Your task to perform on an android device: Go to ESPN.com Image 0: 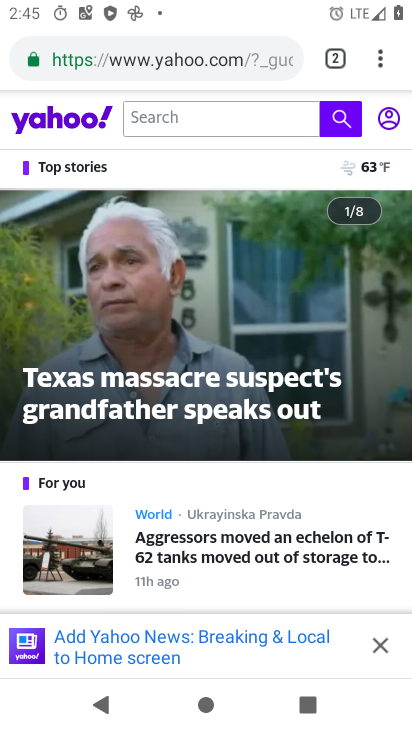
Step 0: press home button
Your task to perform on an android device: Go to ESPN.com Image 1: 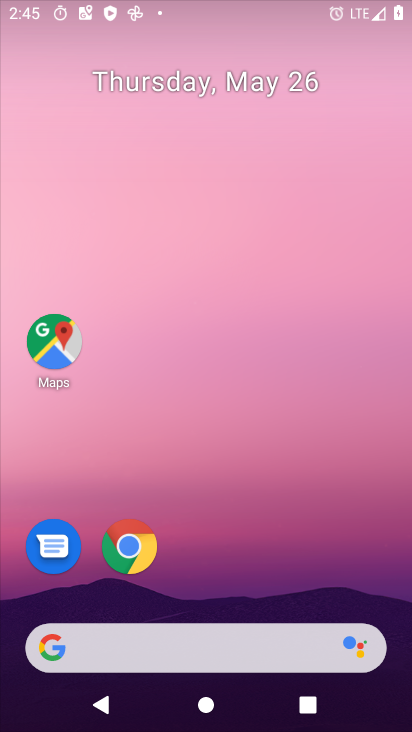
Step 1: drag from (202, 574) to (287, 171)
Your task to perform on an android device: Go to ESPN.com Image 2: 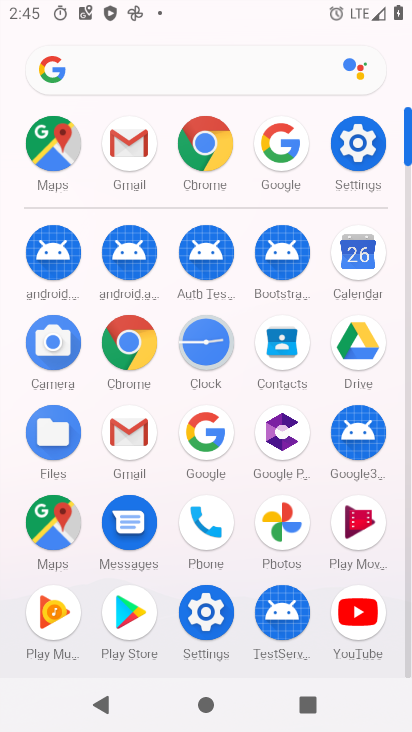
Step 2: click (207, 430)
Your task to perform on an android device: Go to ESPN.com Image 3: 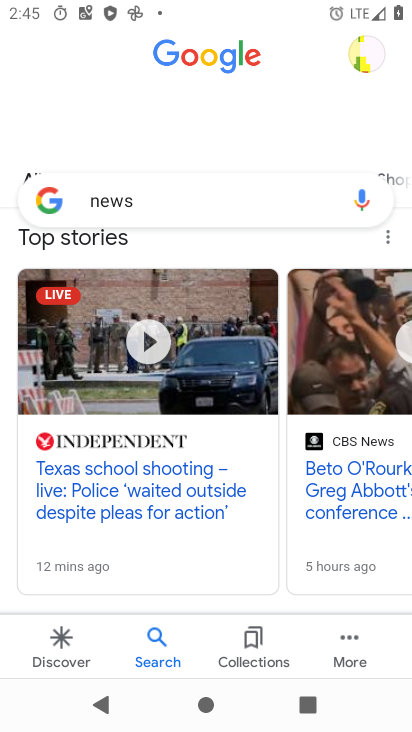
Step 3: click (177, 201)
Your task to perform on an android device: Go to ESPN.com Image 4: 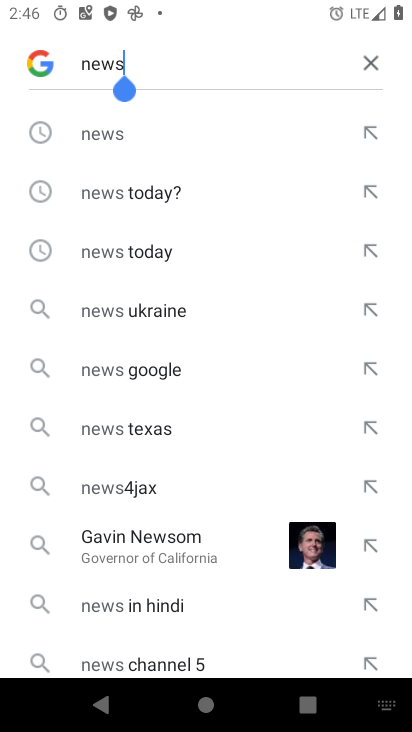
Step 4: click (356, 65)
Your task to perform on an android device: Go to ESPN.com Image 5: 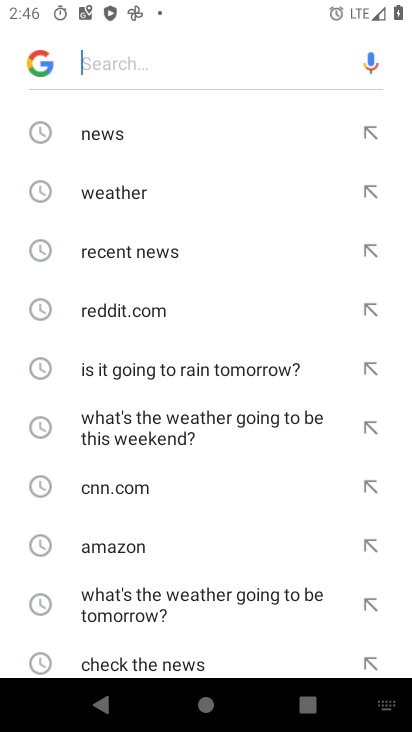
Step 5: drag from (114, 537) to (163, 157)
Your task to perform on an android device: Go to ESPN.com Image 6: 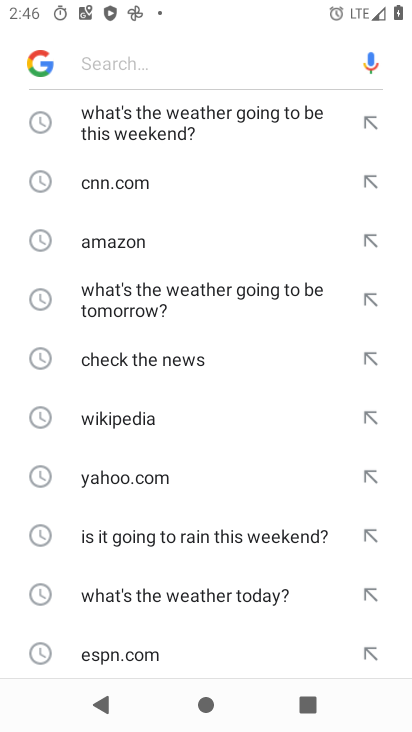
Step 6: click (128, 648)
Your task to perform on an android device: Go to ESPN.com Image 7: 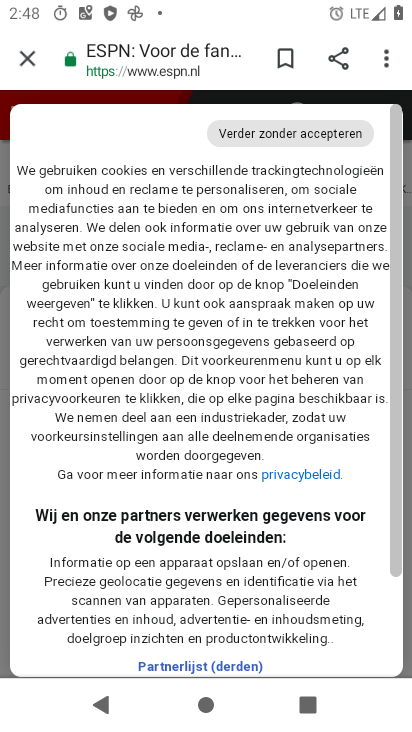
Step 7: task complete